Your task to perform on an android device: Clear all items from cart on costco.com. Add "bose quietcomfort 35" to the cart on costco.com Image 0: 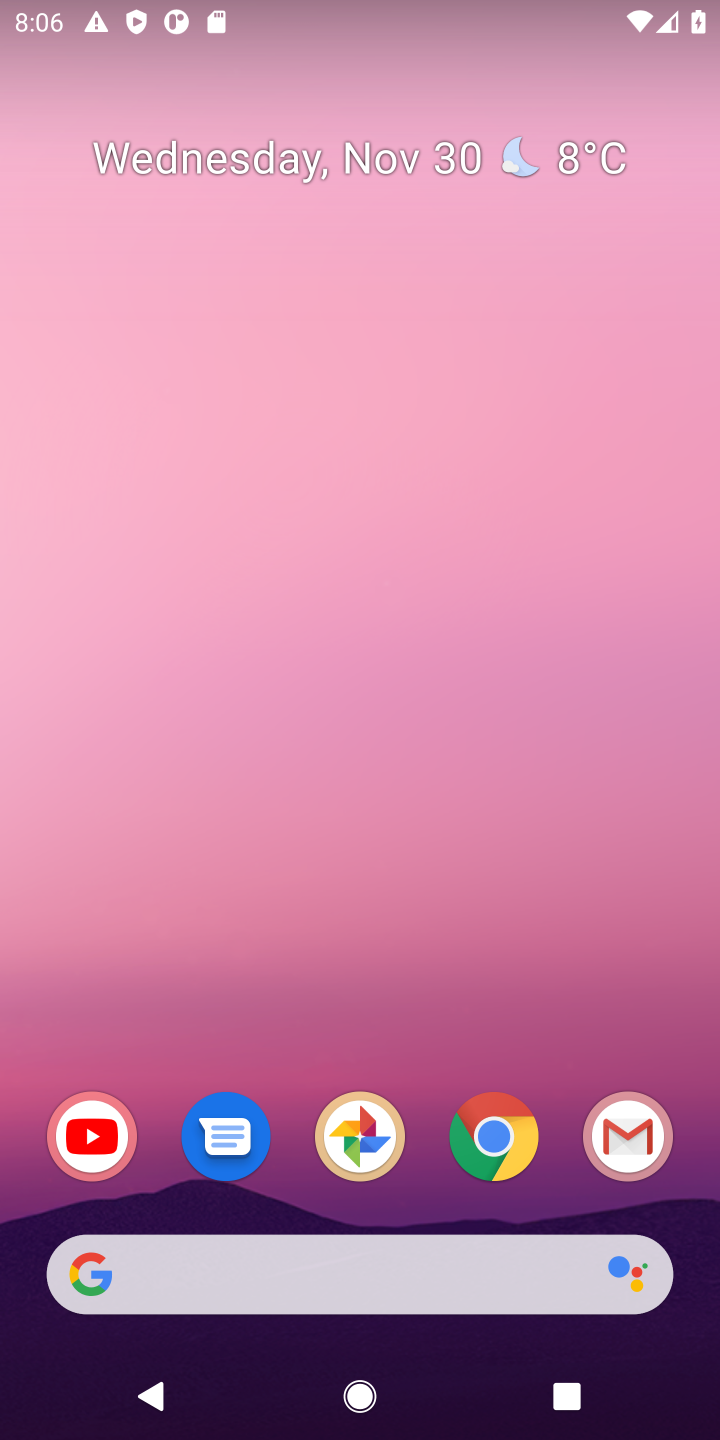
Step 0: click (514, 1136)
Your task to perform on an android device: Clear all items from cart on costco.com. Add "bose quietcomfort 35" to the cart on costco.com Image 1: 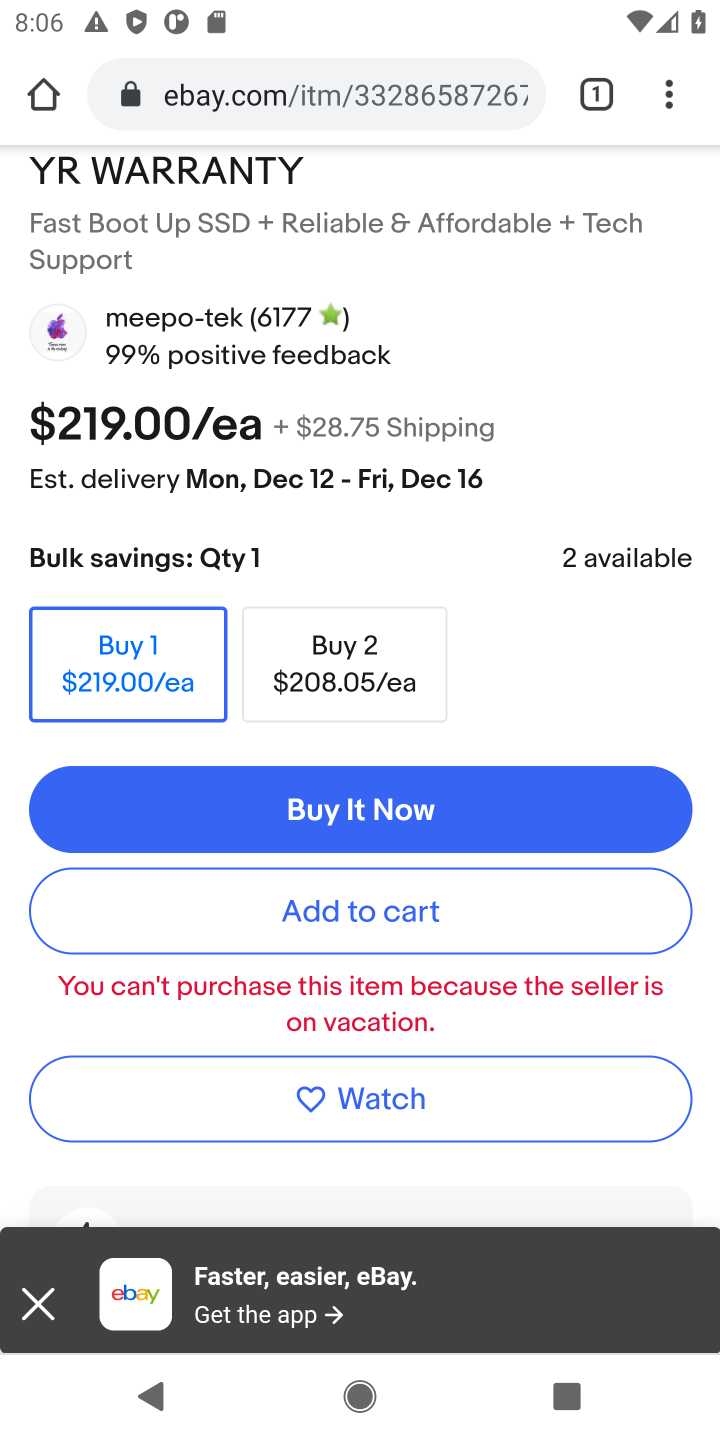
Step 1: click (321, 100)
Your task to perform on an android device: Clear all items from cart on costco.com. Add "bose quietcomfort 35" to the cart on costco.com Image 2: 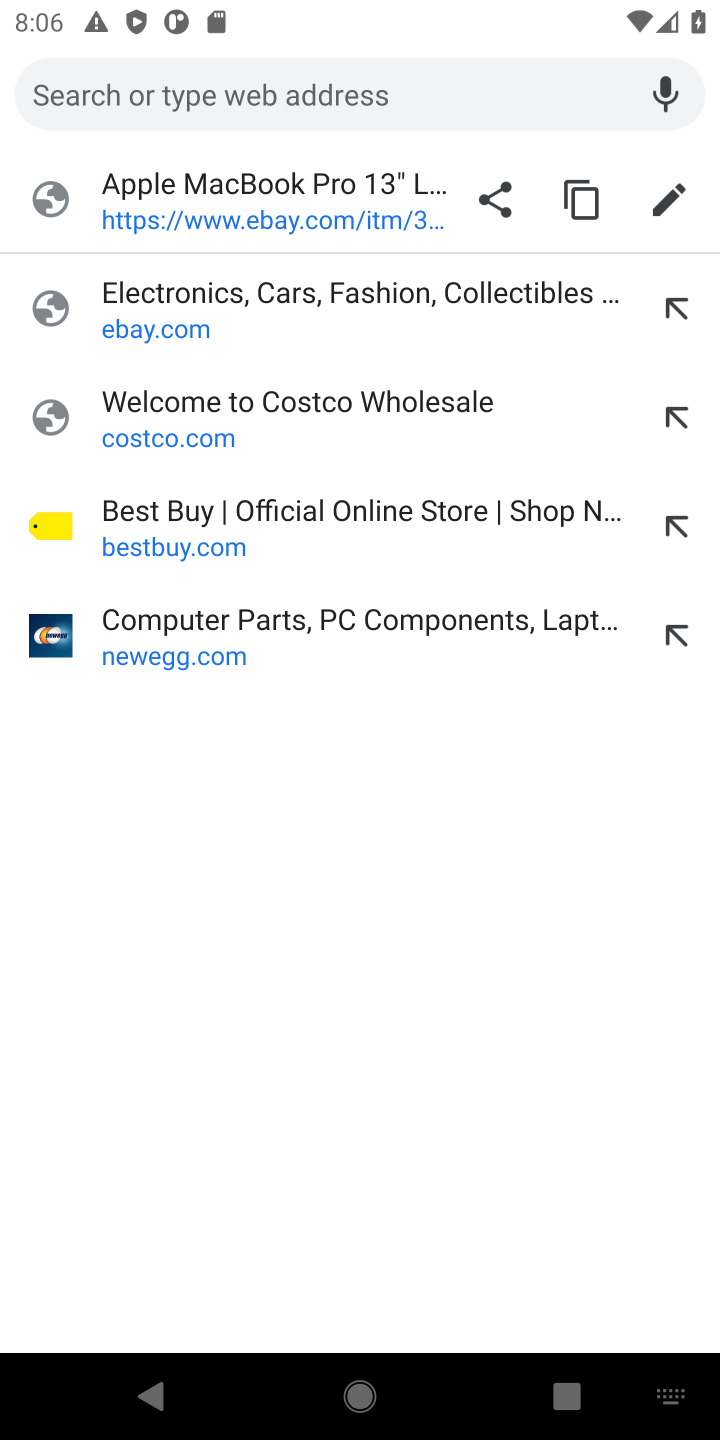
Step 2: click (179, 429)
Your task to perform on an android device: Clear all items from cart on costco.com. Add "bose quietcomfort 35" to the cart on costco.com Image 3: 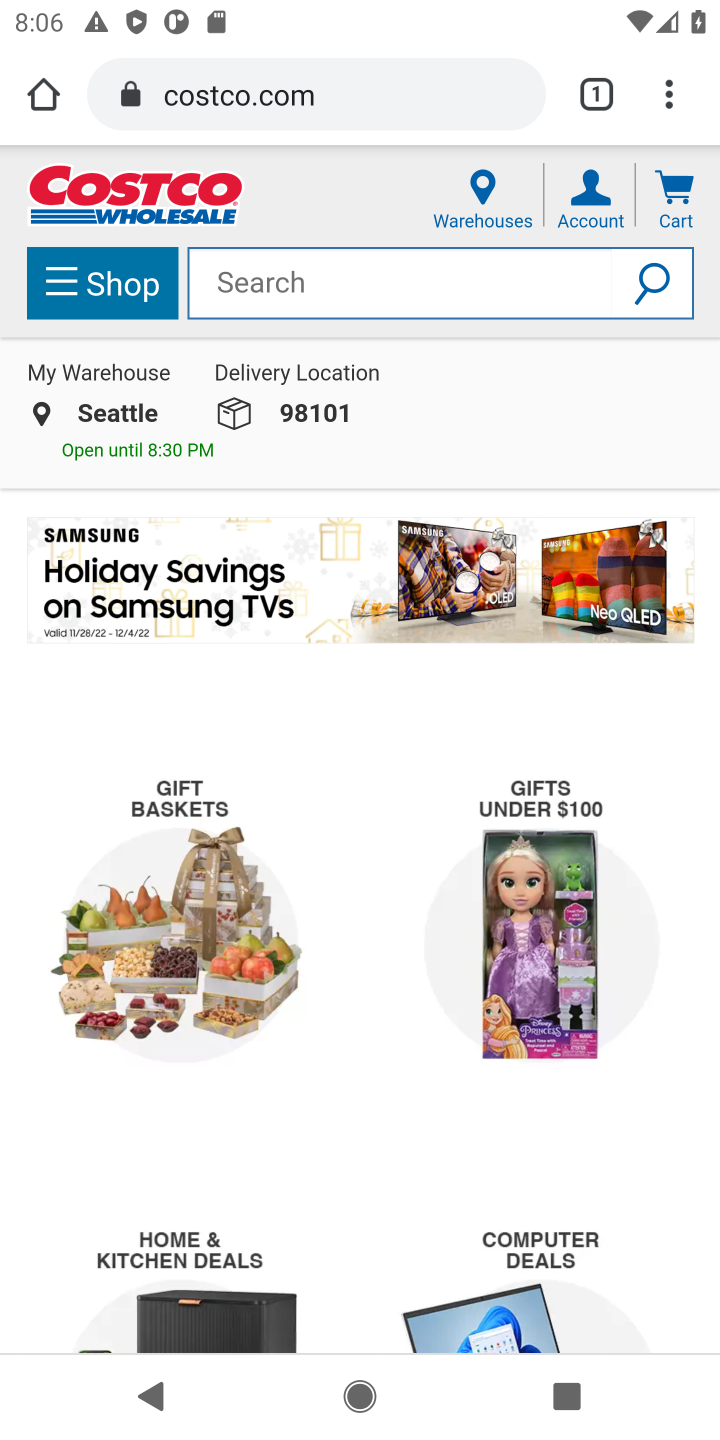
Step 3: click (669, 200)
Your task to perform on an android device: Clear all items from cart on costco.com. Add "bose quietcomfort 35" to the cart on costco.com Image 4: 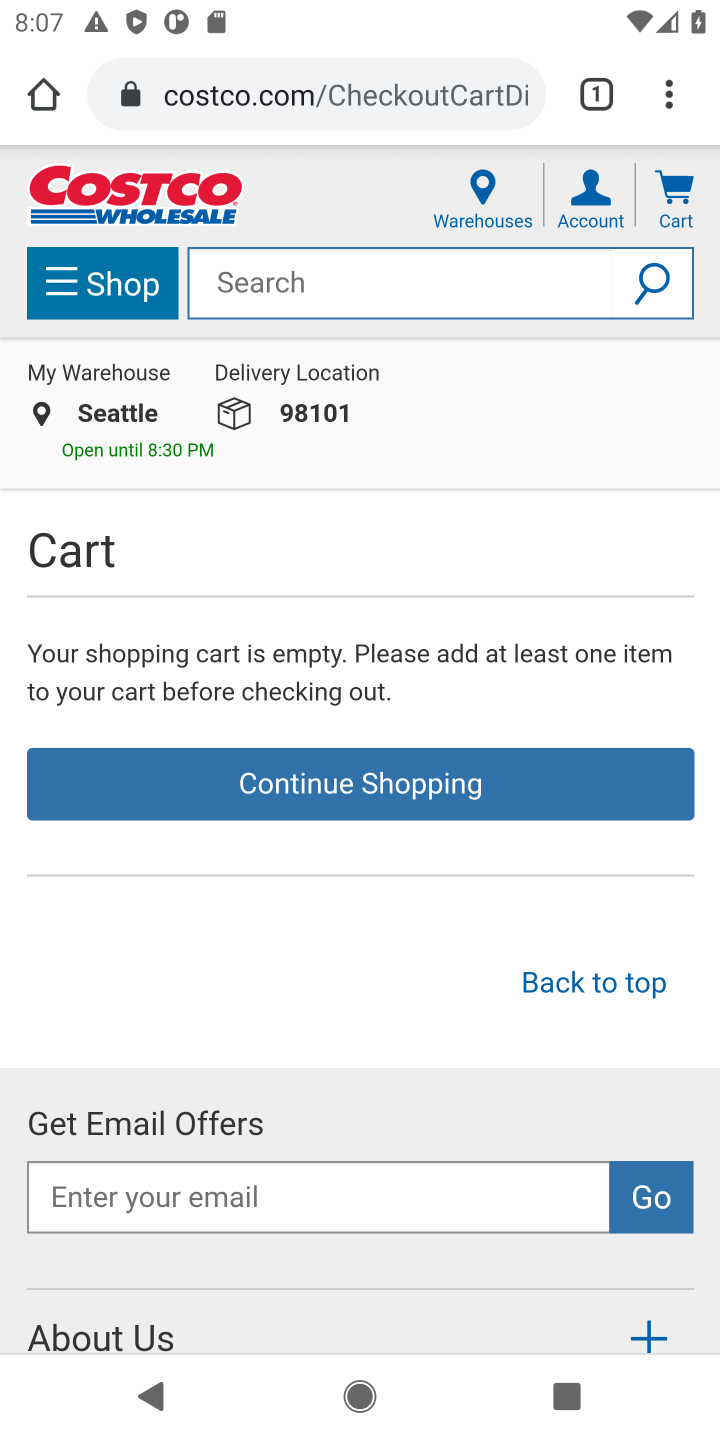
Step 4: click (248, 284)
Your task to perform on an android device: Clear all items from cart on costco.com. Add "bose quietcomfort 35" to the cart on costco.com Image 5: 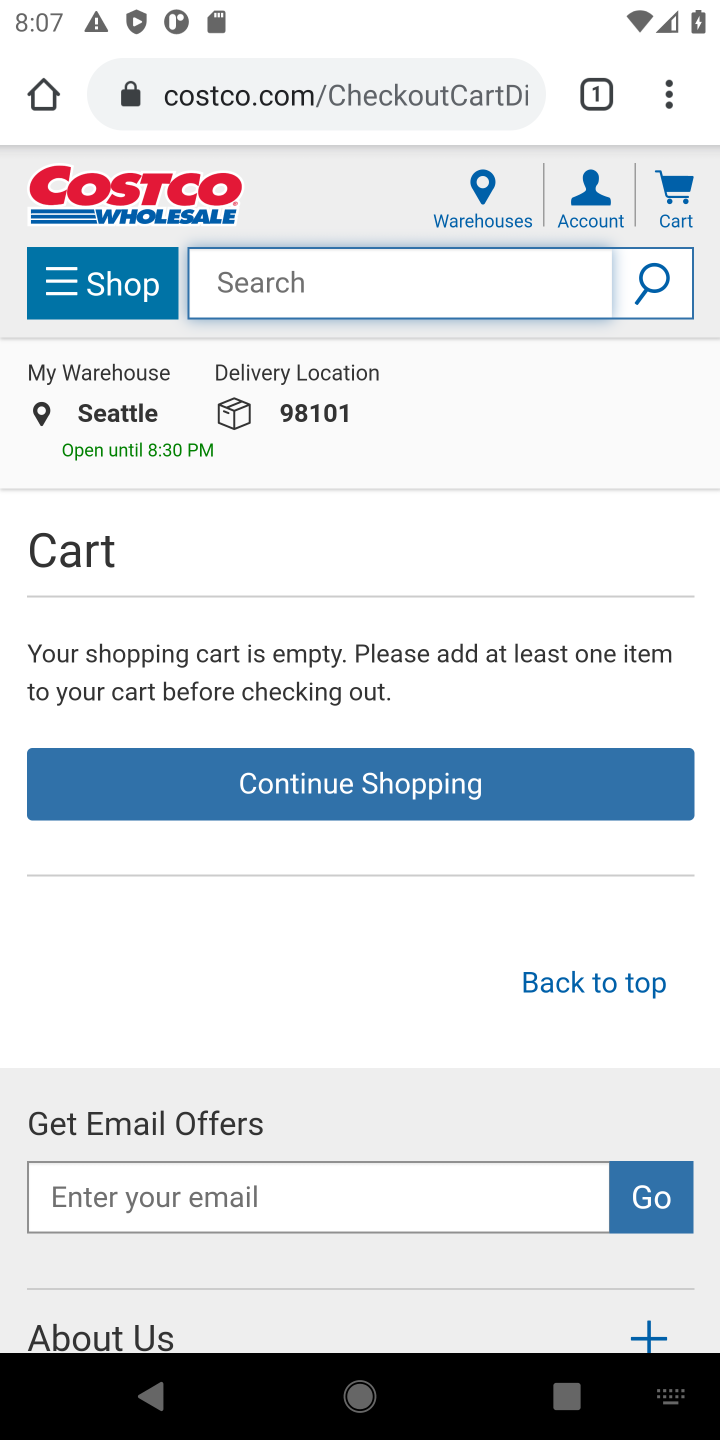
Step 5: type "bose quietcomfort 35"
Your task to perform on an android device: Clear all items from cart on costco.com. Add "bose quietcomfort 35" to the cart on costco.com Image 6: 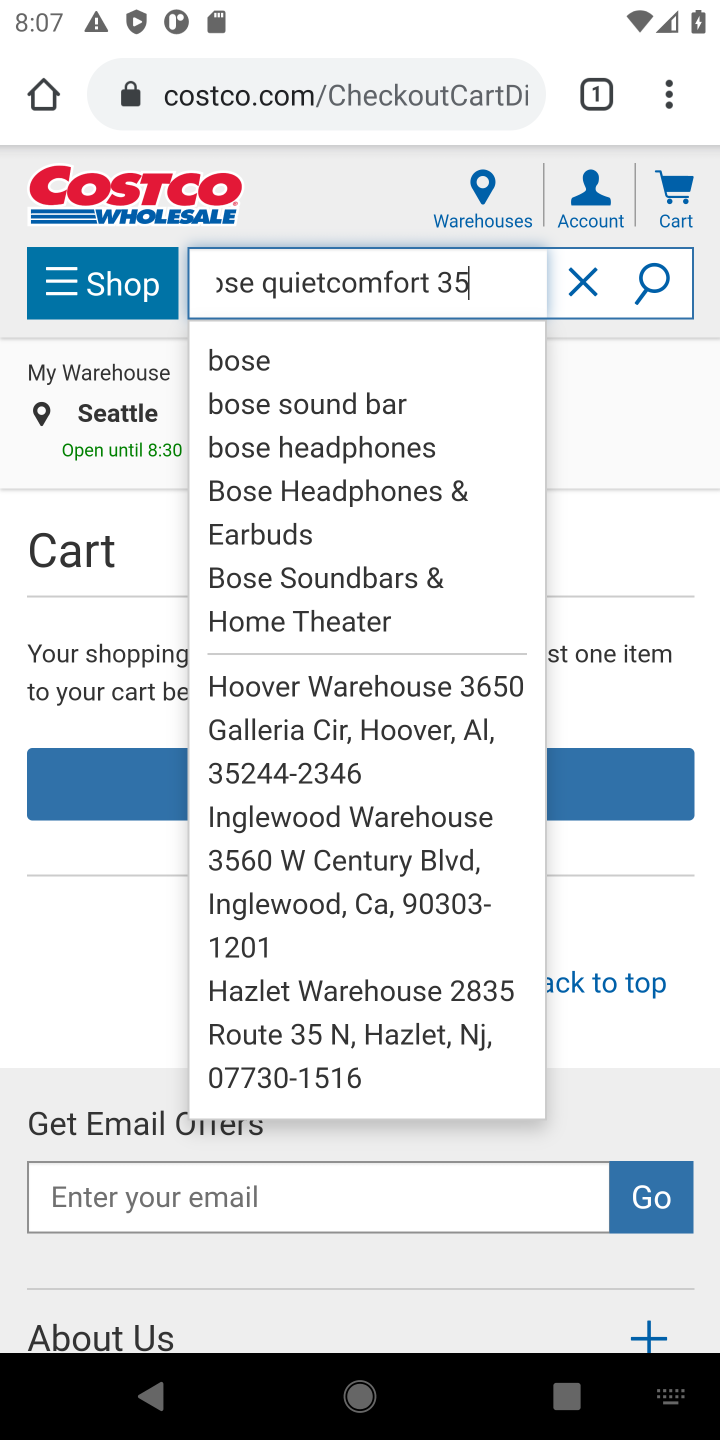
Step 6: click (658, 286)
Your task to perform on an android device: Clear all items from cart on costco.com. Add "bose quietcomfort 35" to the cart on costco.com Image 7: 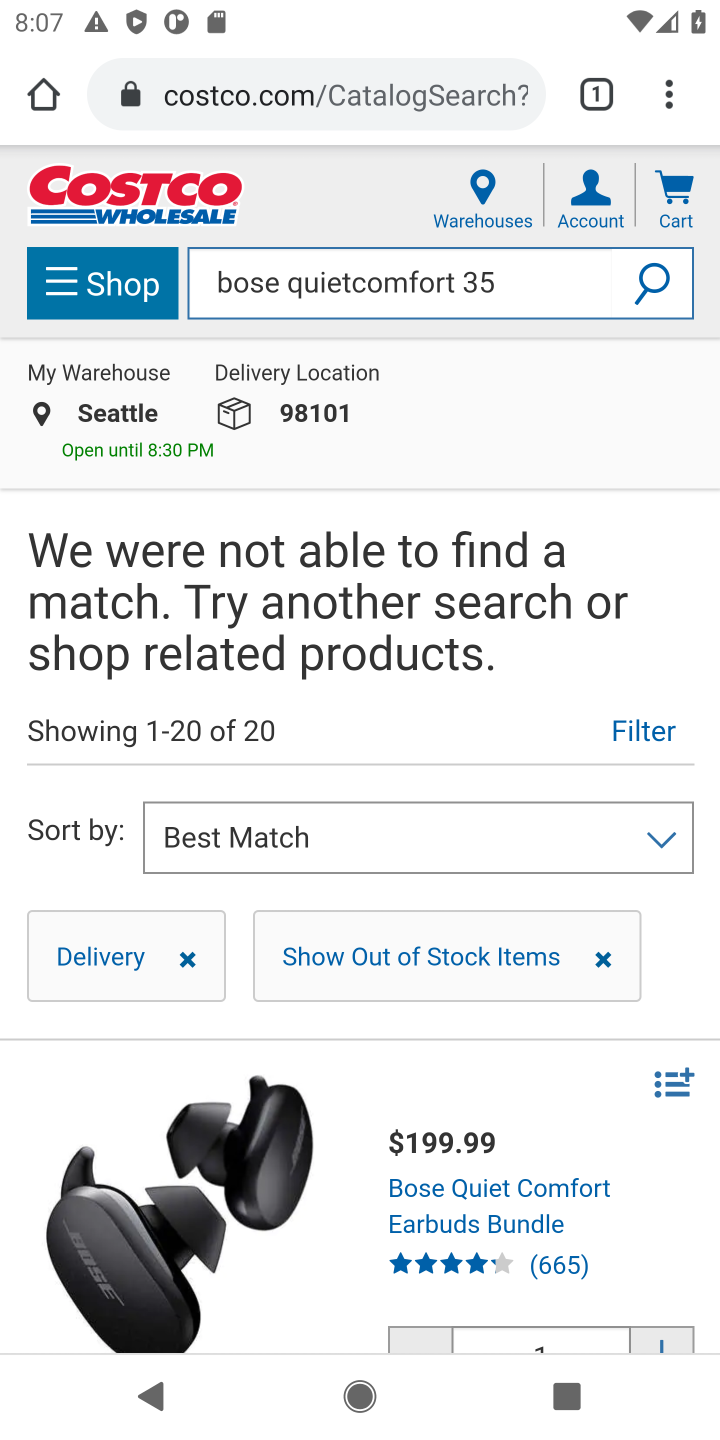
Step 7: task complete